Your task to perform on an android device: Do I have any events this weekend? Image 0: 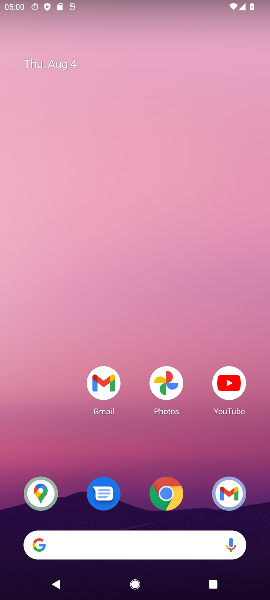
Step 0: drag from (19, 571) to (244, 90)
Your task to perform on an android device: Do I have any events this weekend? Image 1: 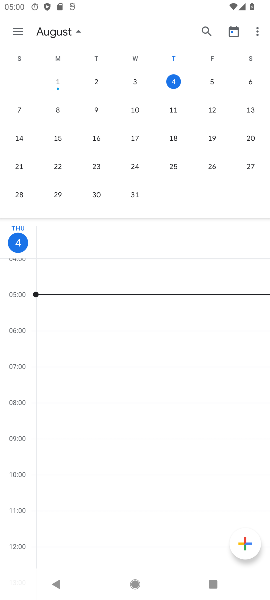
Step 1: task complete